Your task to perform on an android device: Clear the shopping cart on target.com. Add "lg ultragear" to the cart on target.com Image 0: 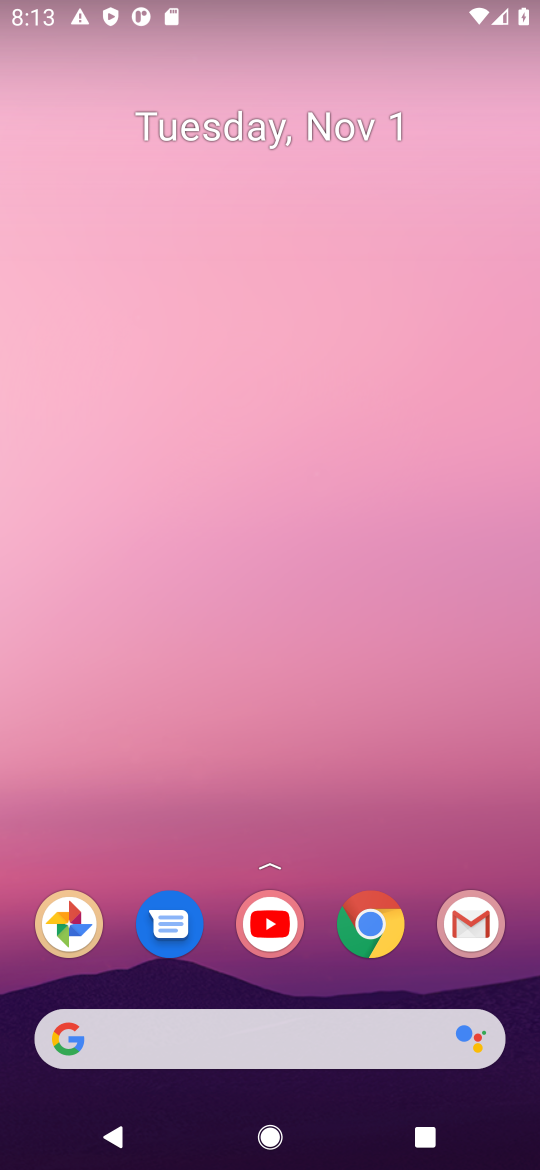
Step 0: press home button
Your task to perform on an android device: Clear the shopping cart on target.com. Add "lg ultragear" to the cart on target.com Image 1: 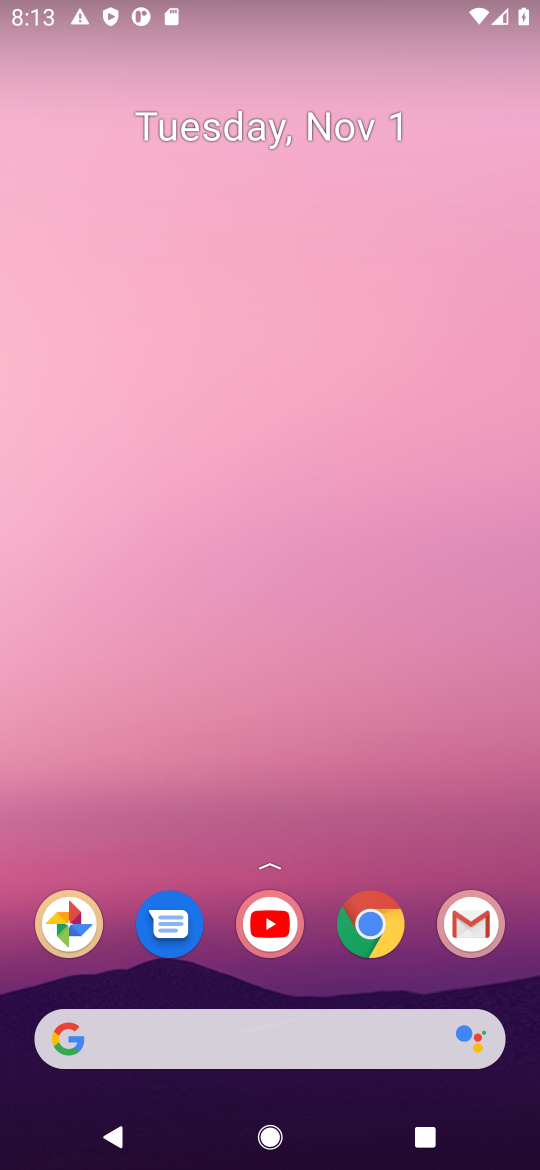
Step 1: click (105, 1039)
Your task to perform on an android device: Clear the shopping cart on target.com. Add "lg ultragear" to the cart on target.com Image 2: 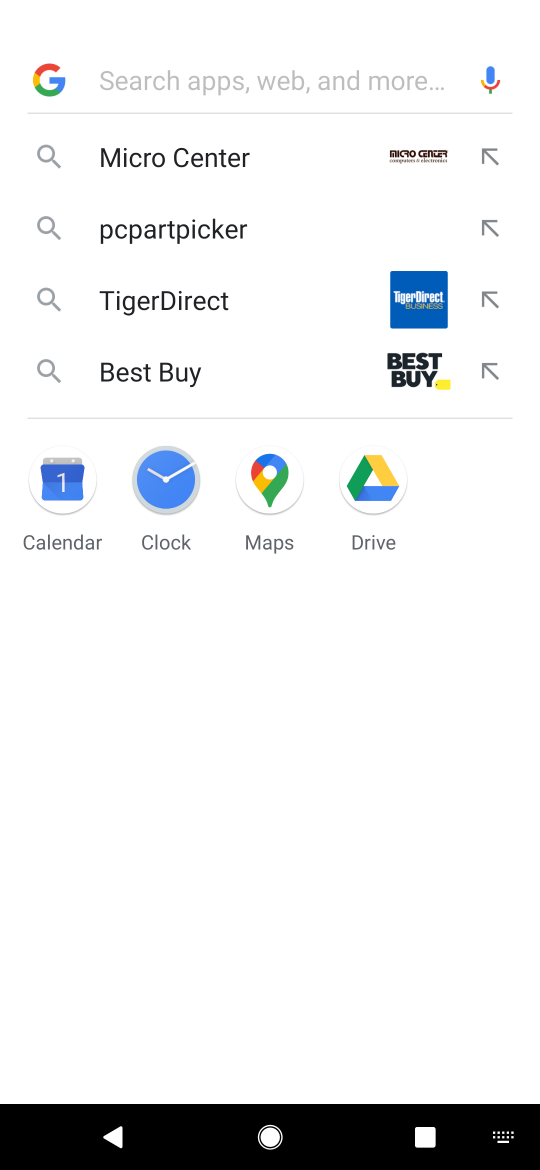
Step 2: press enter
Your task to perform on an android device: Clear the shopping cart on target.com. Add "lg ultragear" to the cart on target.com Image 3: 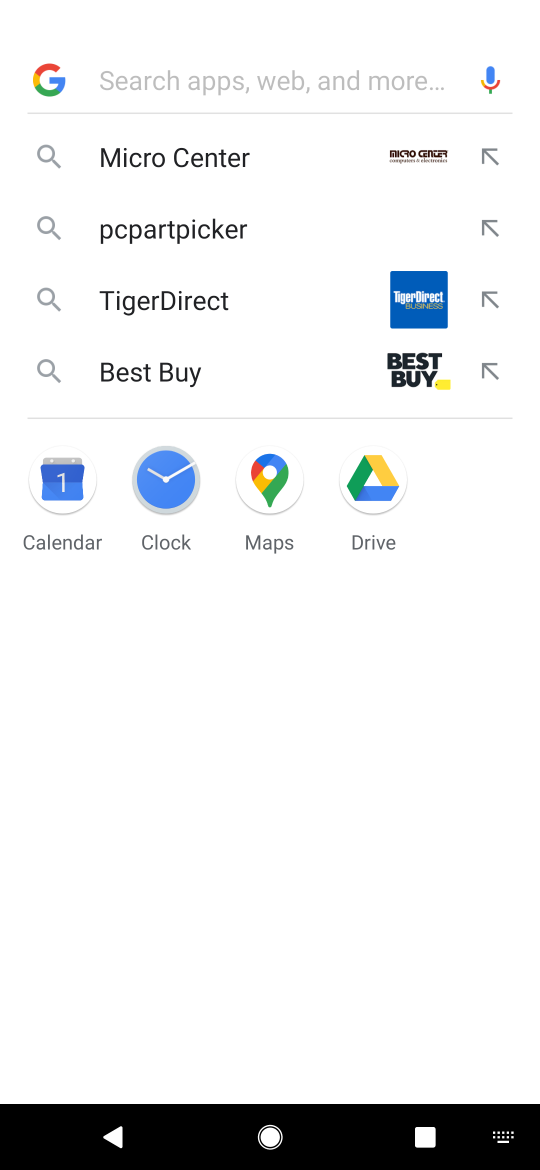
Step 3: type "target.com"
Your task to perform on an android device: Clear the shopping cart on target.com. Add "lg ultragear" to the cart on target.com Image 4: 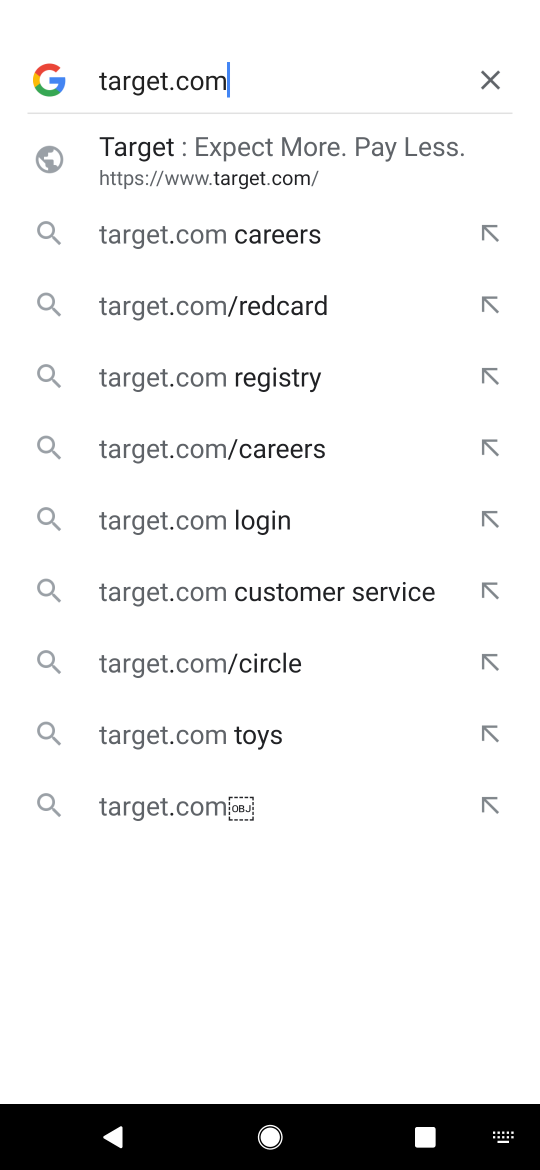
Step 4: press enter
Your task to perform on an android device: Clear the shopping cart on target.com. Add "lg ultragear" to the cart on target.com Image 5: 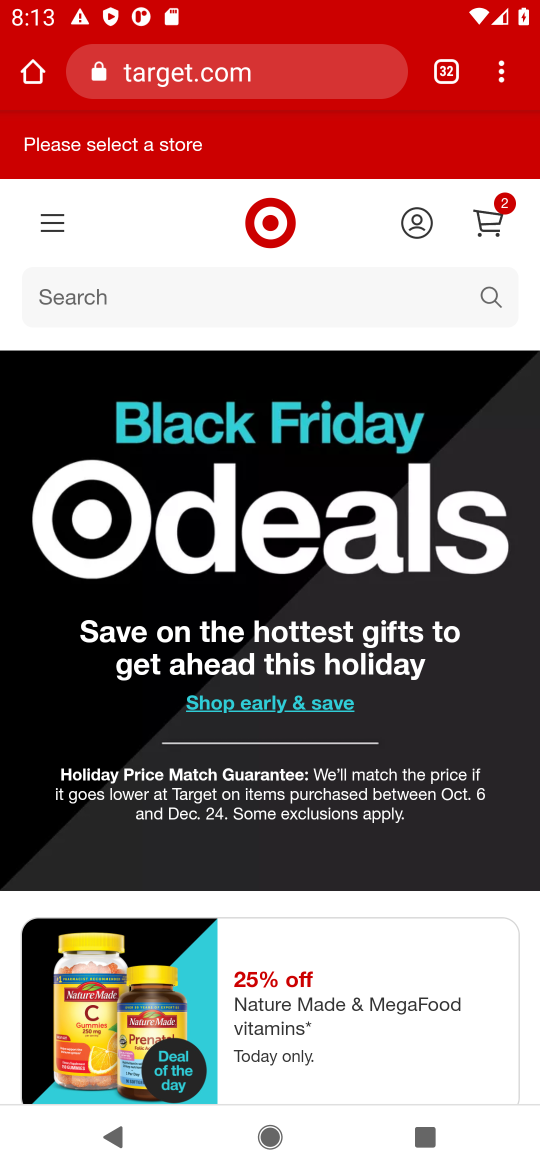
Step 5: click (490, 220)
Your task to perform on an android device: Clear the shopping cart on target.com. Add "lg ultragear" to the cart on target.com Image 6: 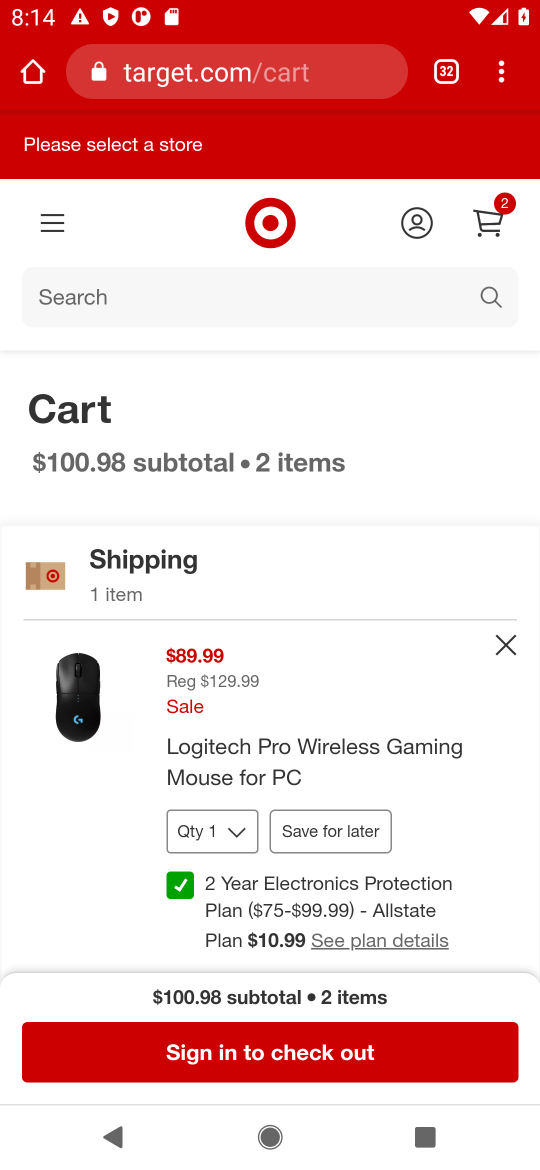
Step 6: click (503, 642)
Your task to perform on an android device: Clear the shopping cart on target.com. Add "lg ultragear" to the cart on target.com Image 7: 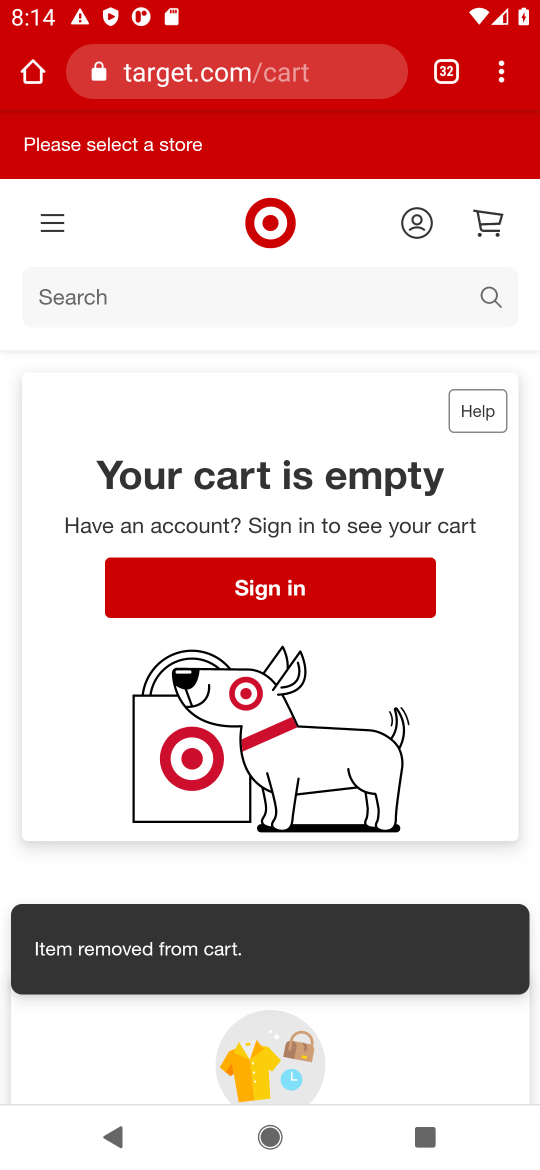
Step 7: click (68, 295)
Your task to perform on an android device: Clear the shopping cart on target.com. Add "lg ultragear" to the cart on target.com Image 8: 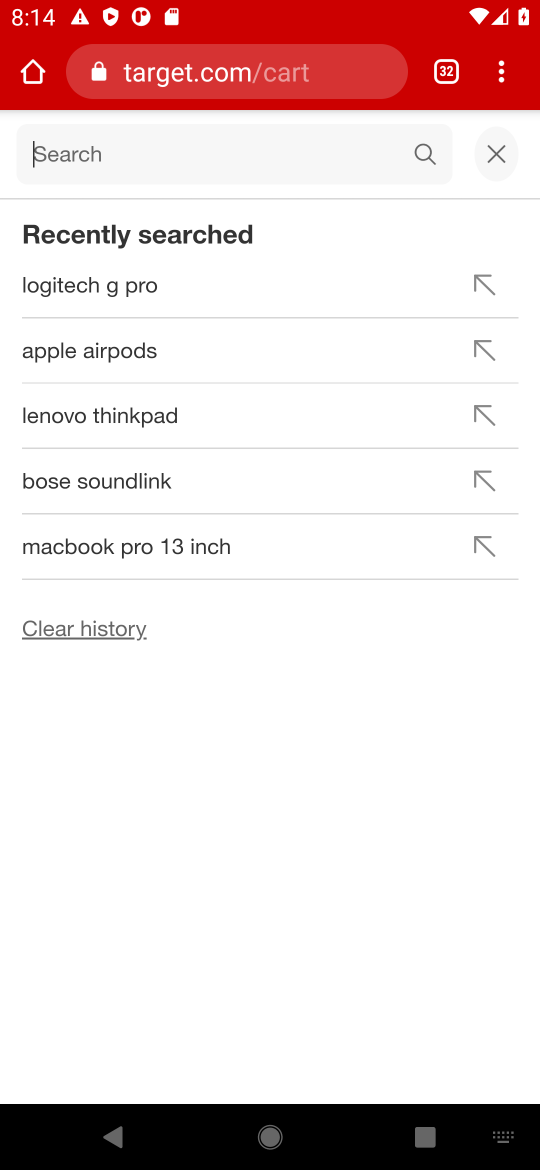
Step 8: type "lg ultragear"
Your task to perform on an android device: Clear the shopping cart on target.com. Add "lg ultragear" to the cart on target.com Image 9: 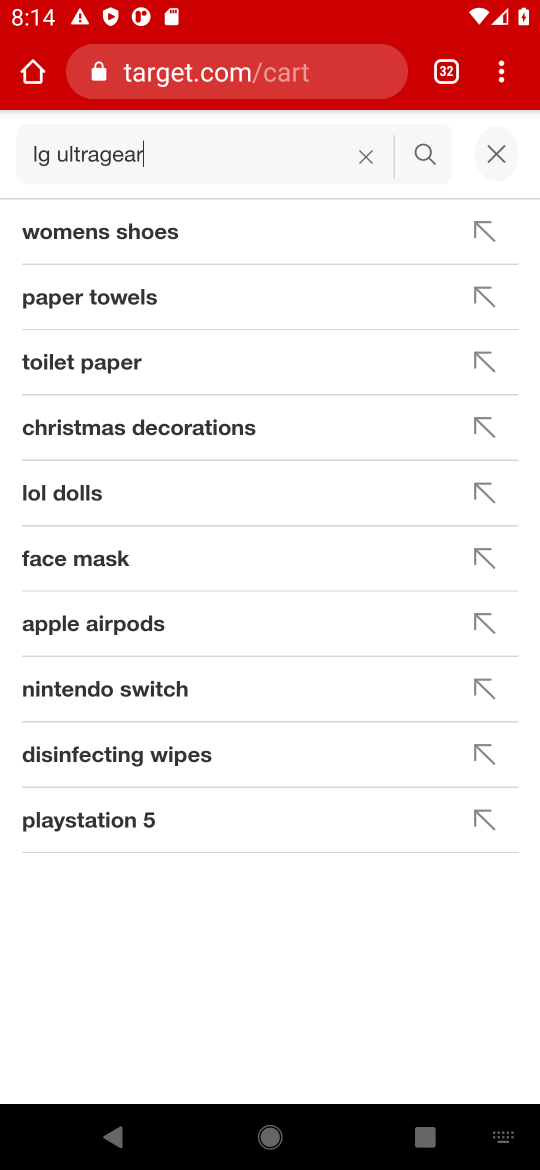
Step 9: press enter
Your task to perform on an android device: Clear the shopping cart on target.com. Add "lg ultragear" to the cart on target.com Image 10: 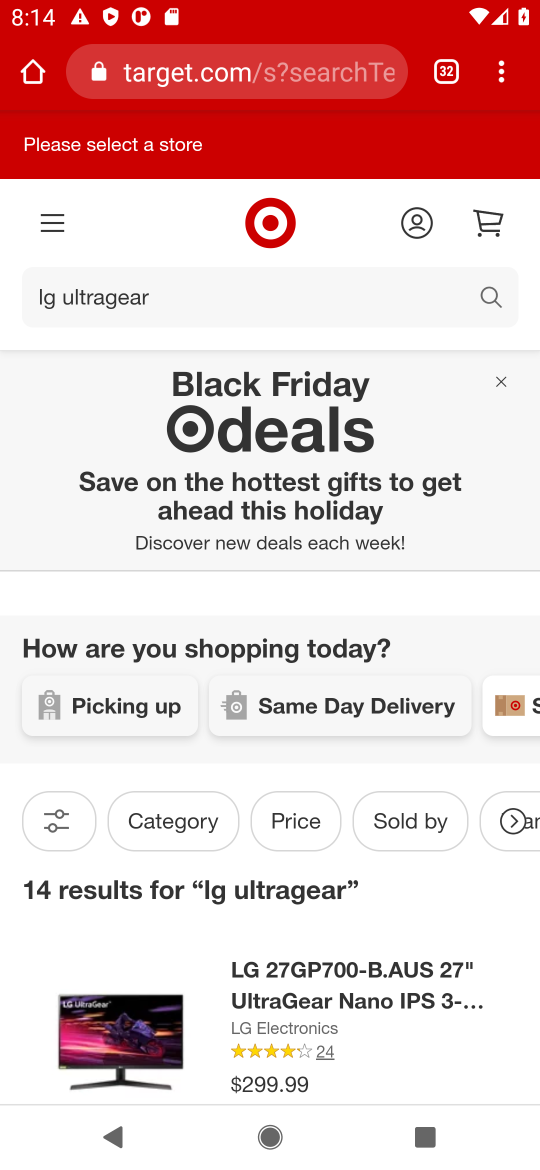
Step 10: drag from (354, 972) to (361, 665)
Your task to perform on an android device: Clear the shopping cart on target.com. Add "lg ultragear" to the cart on target.com Image 11: 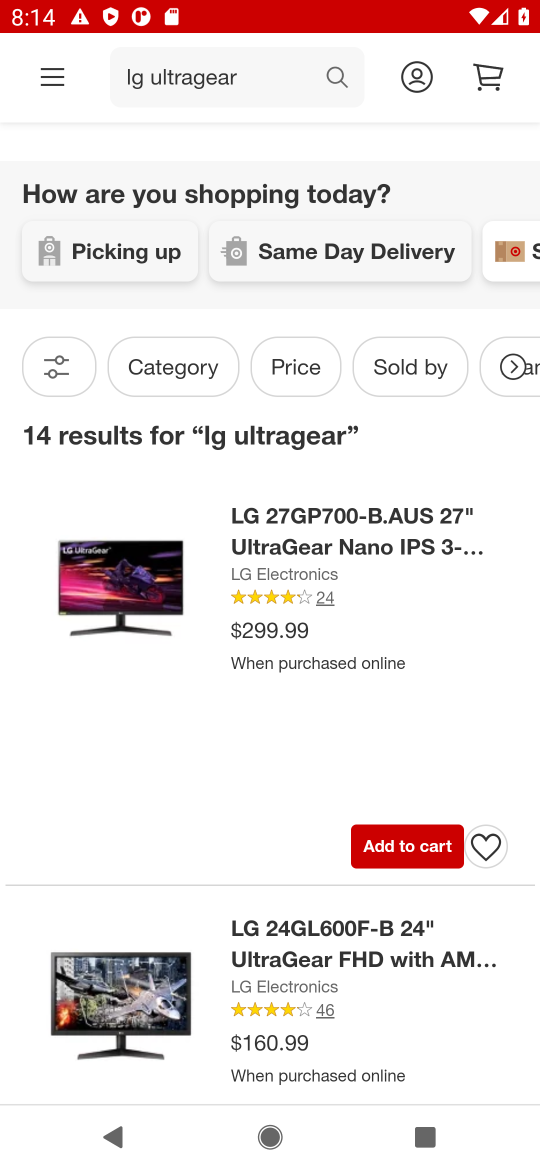
Step 11: click (410, 848)
Your task to perform on an android device: Clear the shopping cart on target.com. Add "lg ultragear" to the cart on target.com Image 12: 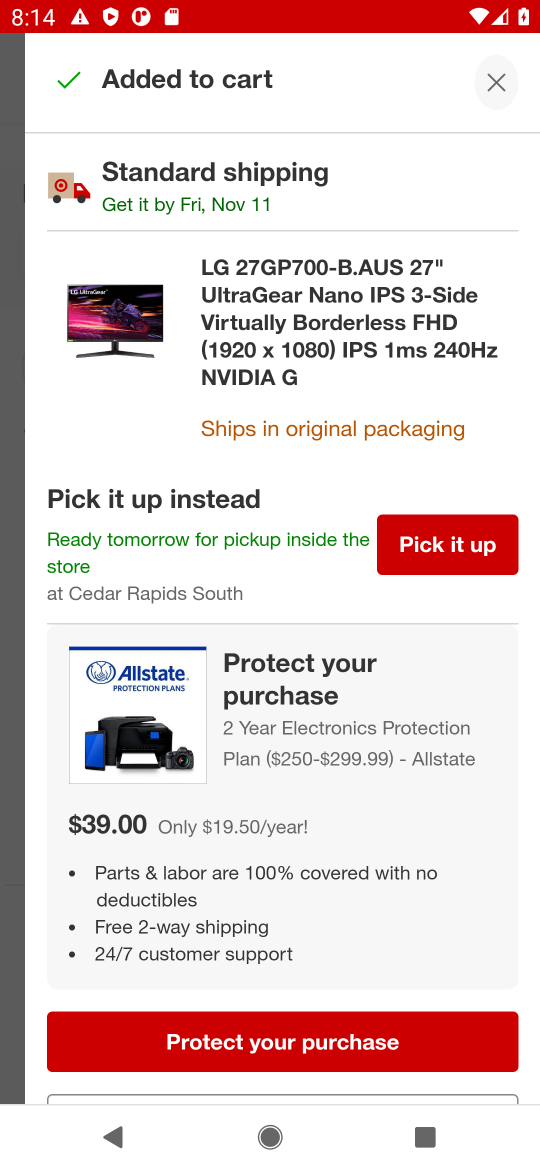
Step 12: task complete